Your task to perform on an android device: toggle show notifications on the lock screen Image 0: 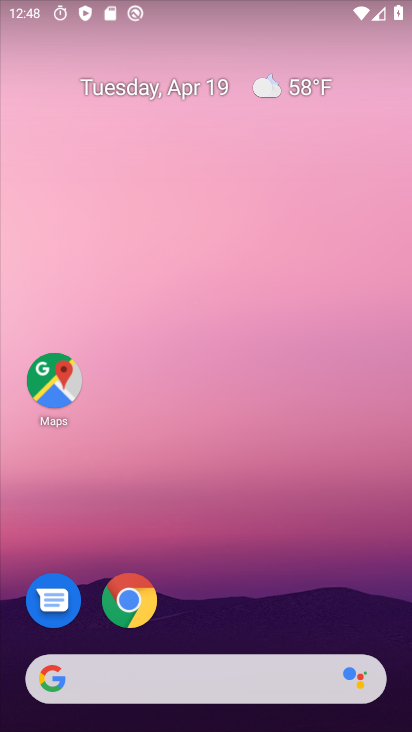
Step 0: drag from (293, 691) to (322, 139)
Your task to perform on an android device: toggle show notifications on the lock screen Image 1: 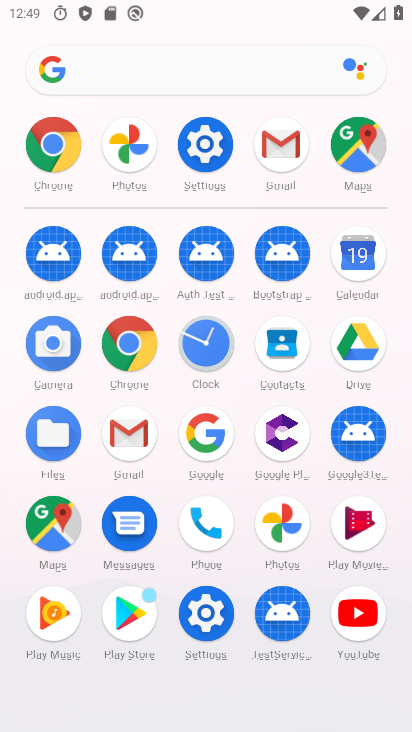
Step 1: click (211, 153)
Your task to perform on an android device: toggle show notifications on the lock screen Image 2: 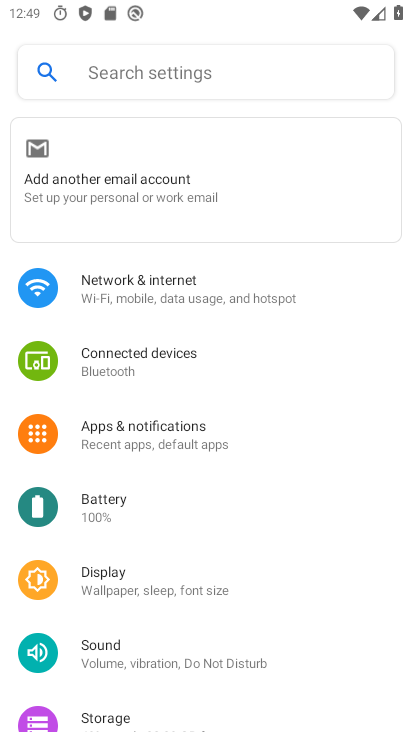
Step 2: click (132, 83)
Your task to perform on an android device: toggle show notifications on the lock screen Image 3: 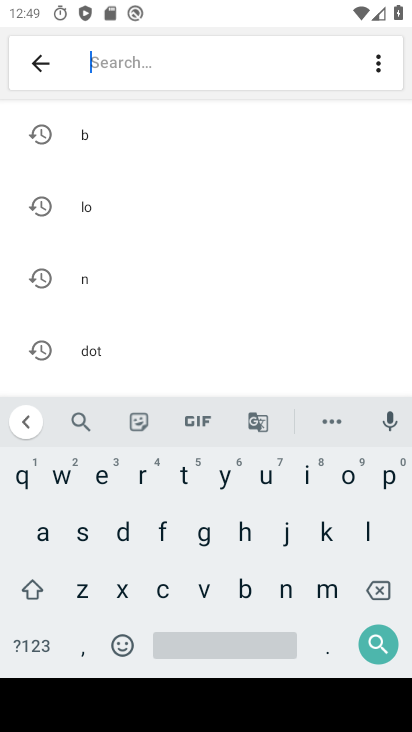
Step 3: click (101, 215)
Your task to perform on an android device: toggle show notifications on the lock screen Image 4: 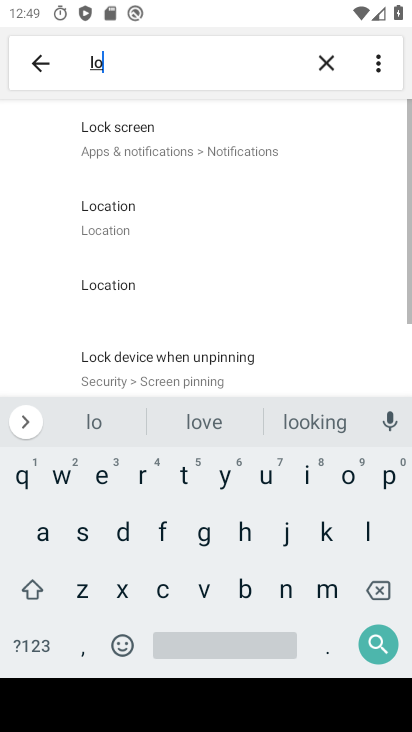
Step 4: click (120, 148)
Your task to perform on an android device: toggle show notifications on the lock screen Image 5: 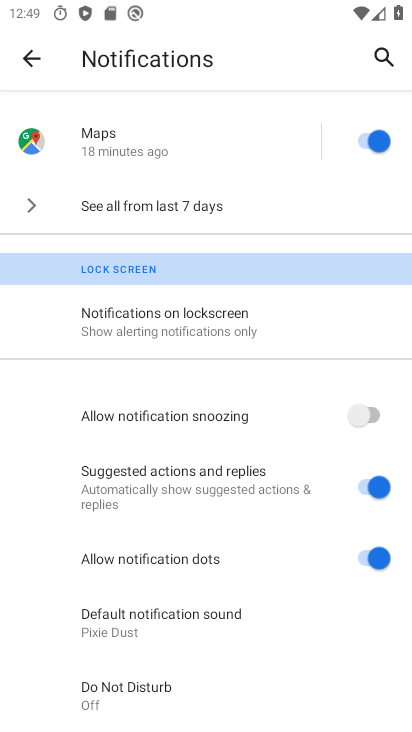
Step 5: click (121, 317)
Your task to perform on an android device: toggle show notifications on the lock screen Image 6: 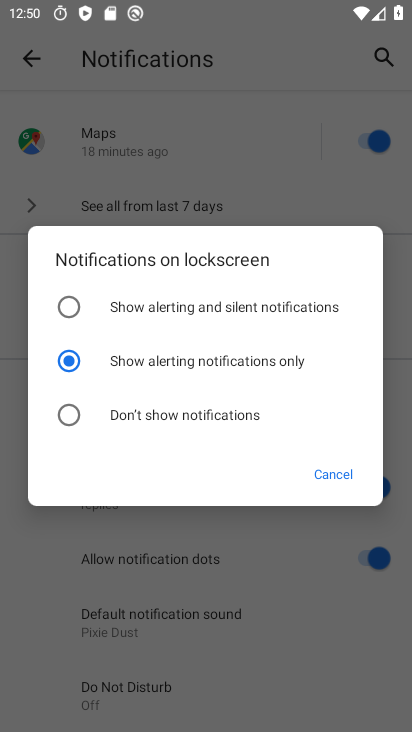
Step 6: click (147, 321)
Your task to perform on an android device: toggle show notifications on the lock screen Image 7: 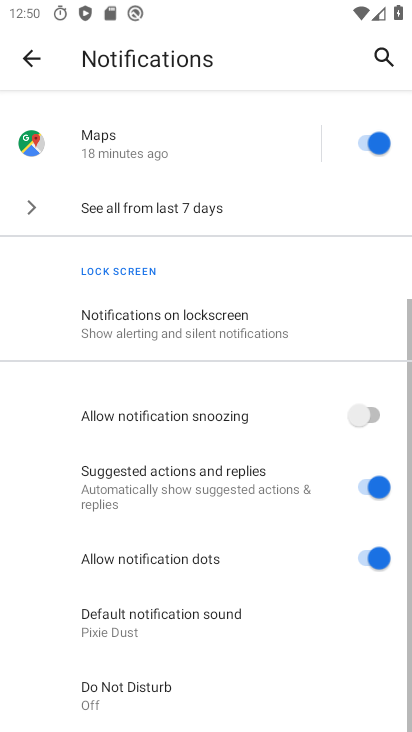
Step 7: task complete